Your task to perform on an android device: What's on my calendar tomorrow? Image 0: 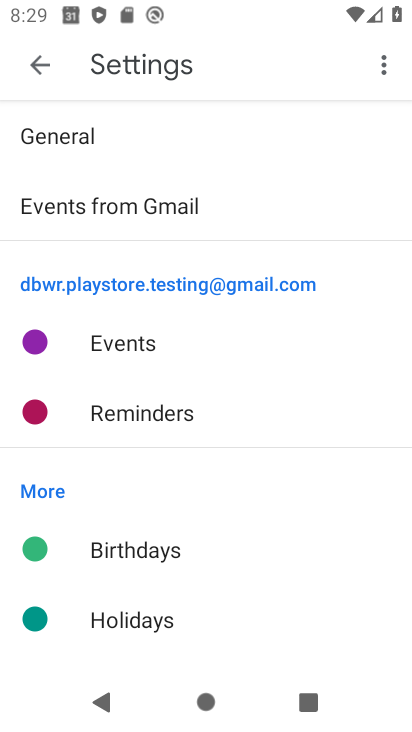
Step 0: press home button
Your task to perform on an android device: What's on my calendar tomorrow? Image 1: 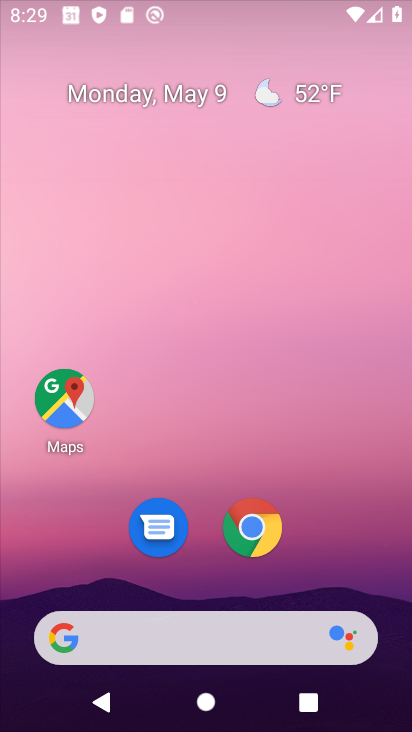
Step 1: drag from (205, 578) to (232, 110)
Your task to perform on an android device: What's on my calendar tomorrow? Image 2: 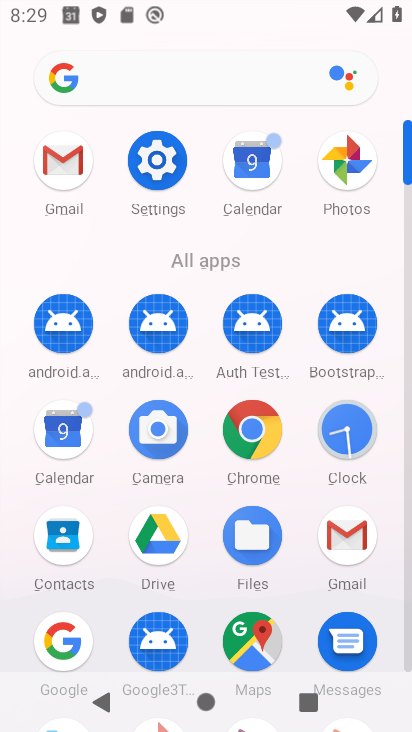
Step 2: click (61, 427)
Your task to perform on an android device: What's on my calendar tomorrow? Image 3: 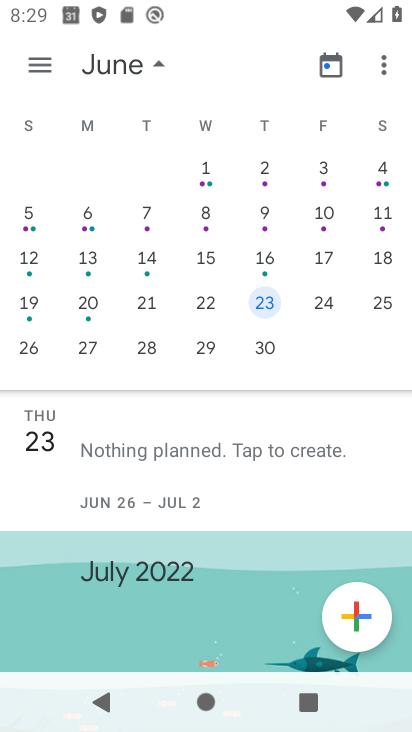
Step 3: drag from (67, 376) to (386, 371)
Your task to perform on an android device: What's on my calendar tomorrow? Image 4: 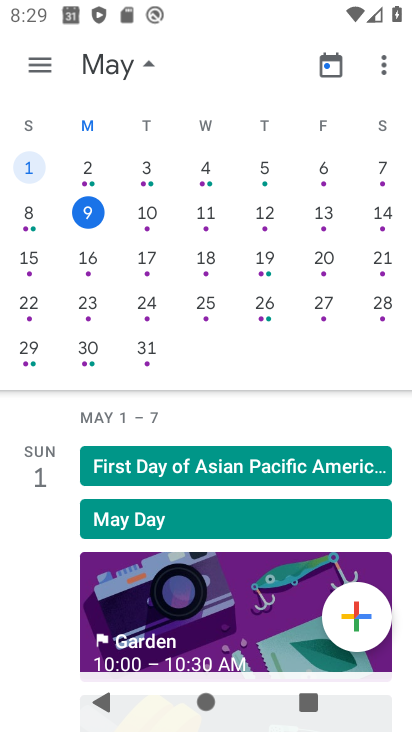
Step 4: click (145, 215)
Your task to perform on an android device: What's on my calendar tomorrow? Image 5: 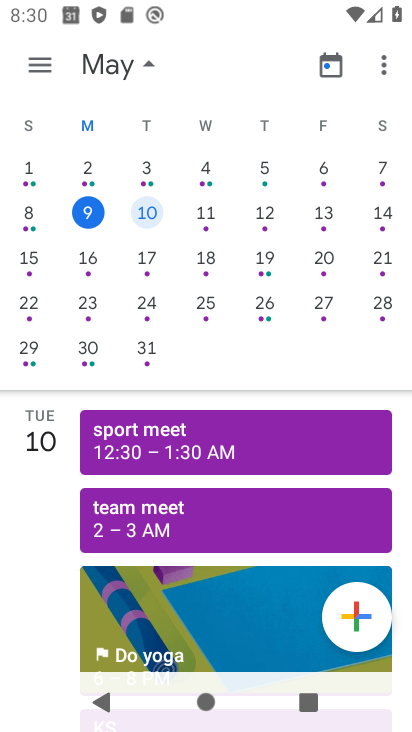
Step 5: task complete